Your task to perform on an android device: Turn off the flashlight Image 0: 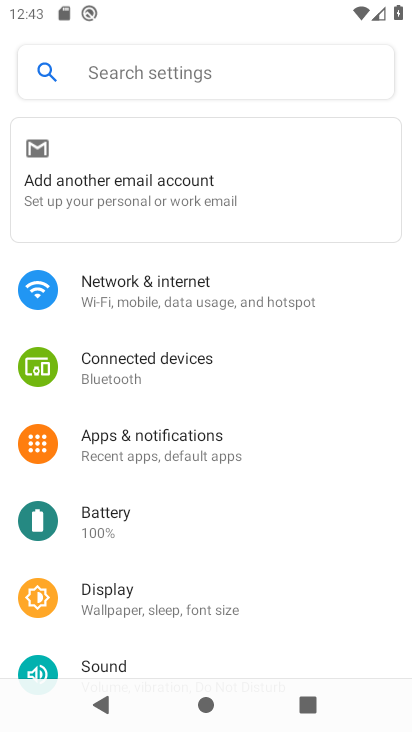
Step 0: click (148, 63)
Your task to perform on an android device: Turn off the flashlight Image 1: 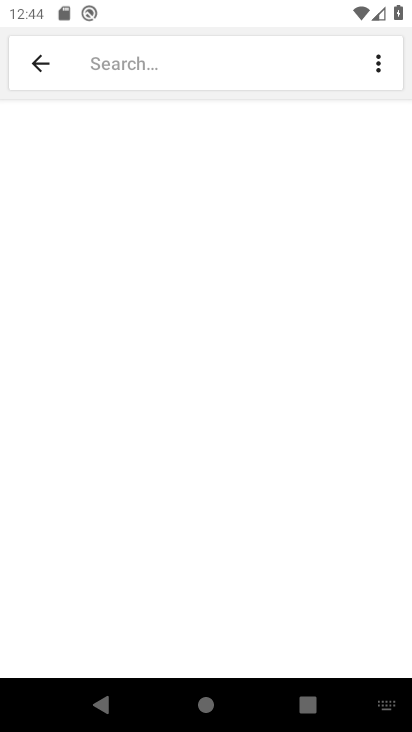
Step 1: type "flashlight"
Your task to perform on an android device: Turn off the flashlight Image 2: 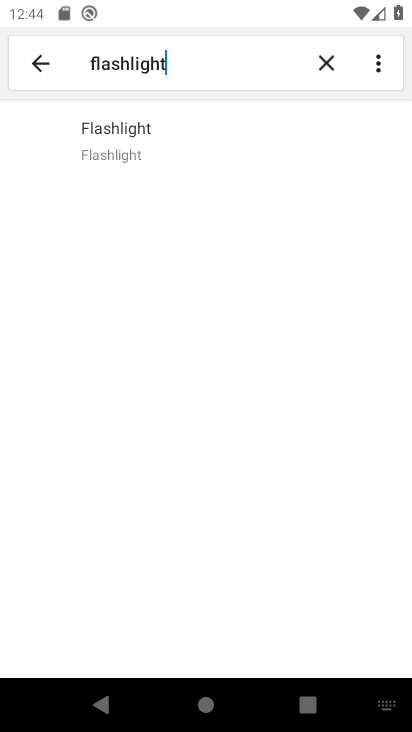
Step 2: click (111, 150)
Your task to perform on an android device: Turn off the flashlight Image 3: 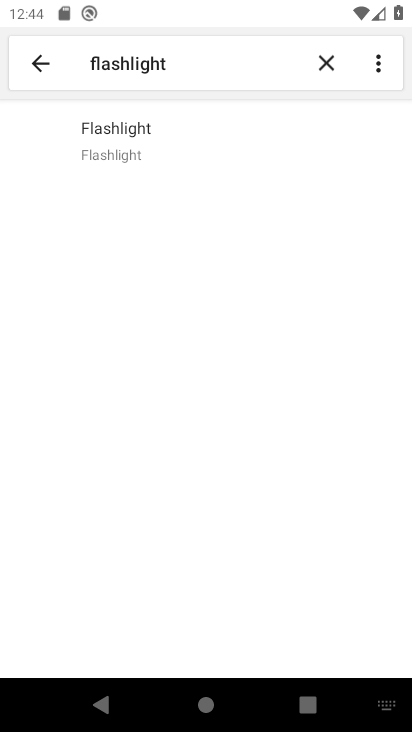
Step 3: click (119, 148)
Your task to perform on an android device: Turn off the flashlight Image 4: 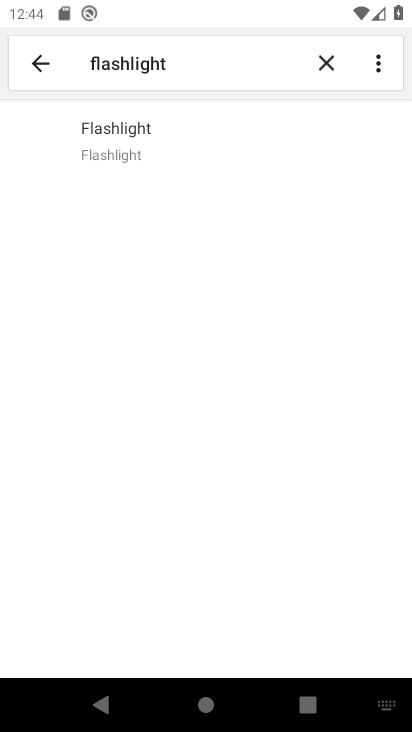
Step 4: click (128, 142)
Your task to perform on an android device: Turn off the flashlight Image 5: 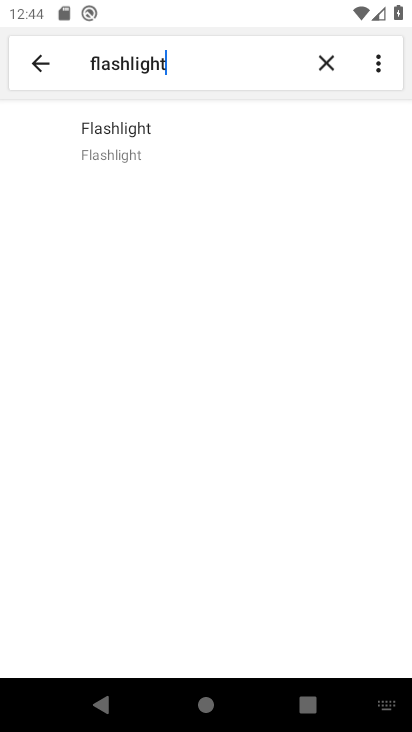
Step 5: task complete